Your task to perform on an android device: Show me productivity apps on the Play Store Image 0: 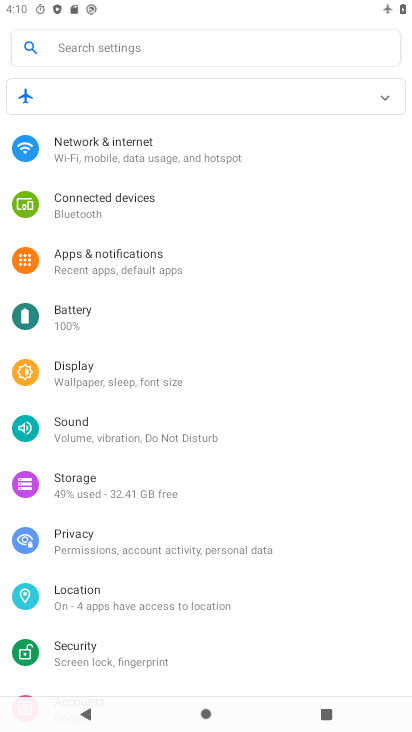
Step 0: press home button
Your task to perform on an android device: Show me productivity apps on the Play Store Image 1: 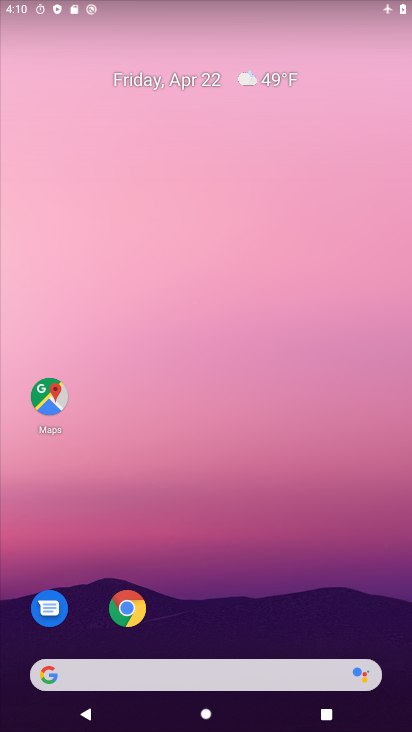
Step 1: drag from (281, 571) to (294, 71)
Your task to perform on an android device: Show me productivity apps on the Play Store Image 2: 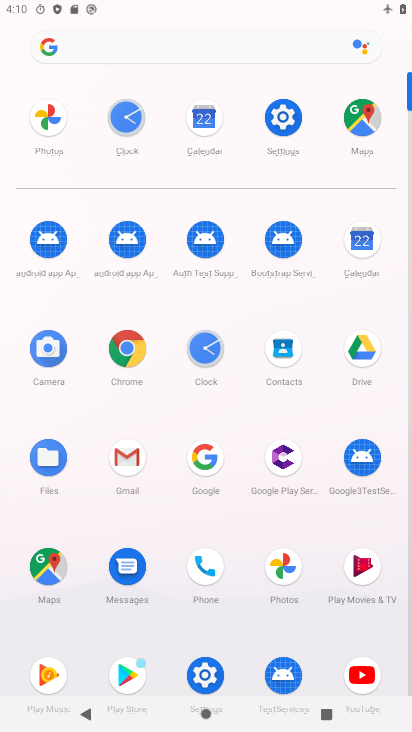
Step 2: click (135, 669)
Your task to perform on an android device: Show me productivity apps on the Play Store Image 3: 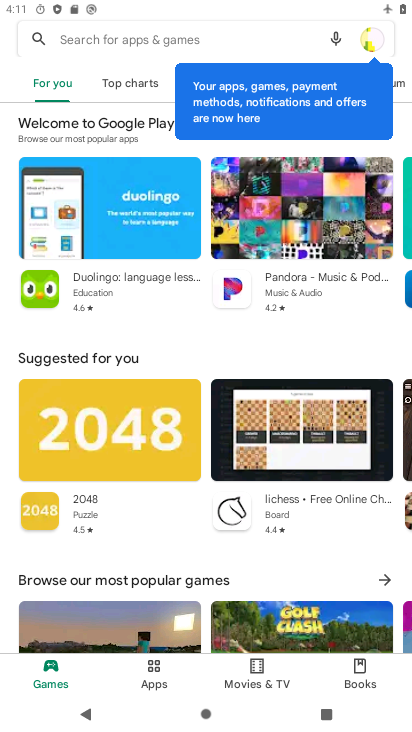
Step 3: click (177, 32)
Your task to perform on an android device: Show me productivity apps on the Play Store Image 4: 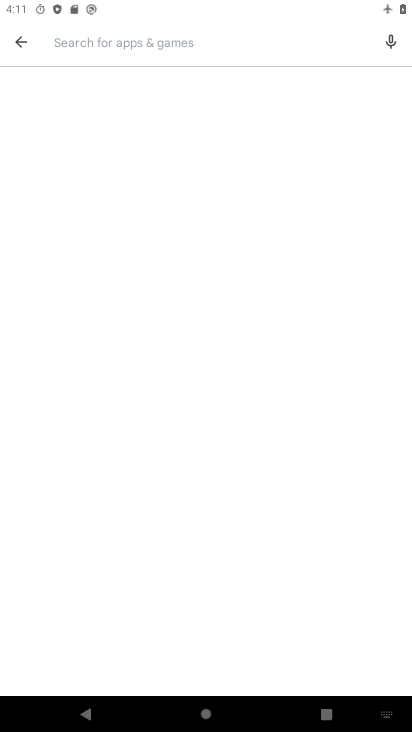
Step 4: type "productivity apps"
Your task to perform on an android device: Show me productivity apps on the Play Store Image 5: 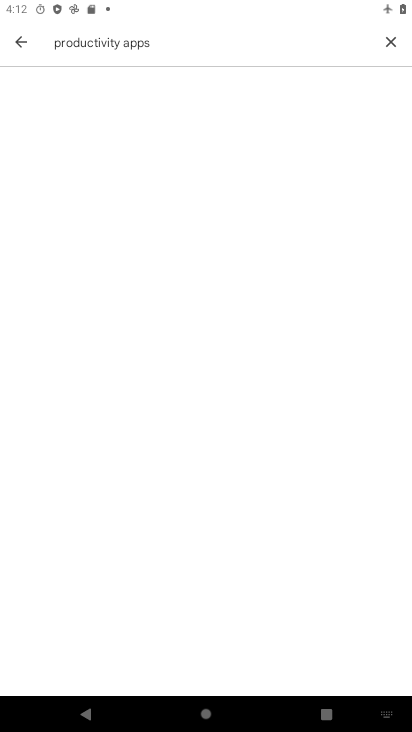
Step 5: task complete